Your task to perform on an android device: open the mobile data screen to see how much data has been used Image 0: 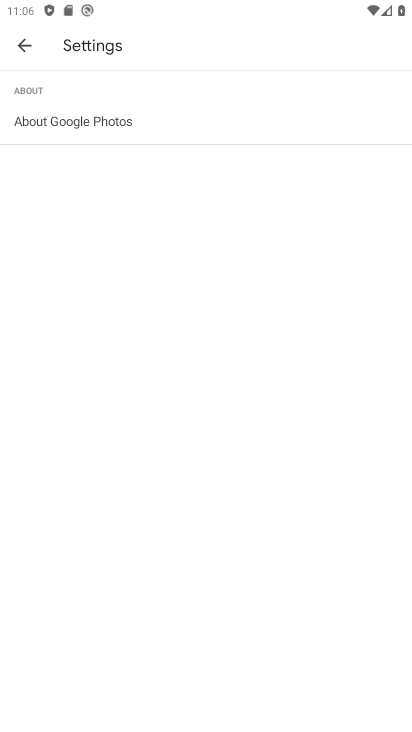
Step 0: press home button
Your task to perform on an android device: open the mobile data screen to see how much data has been used Image 1: 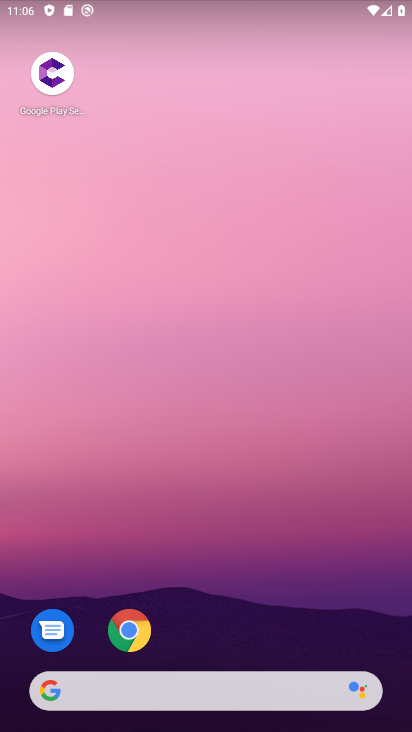
Step 1: drag from (251, 609) to (187, 14)
Your task to perform on an android device: open the mobile data screen to see how much data has been used Image 2: 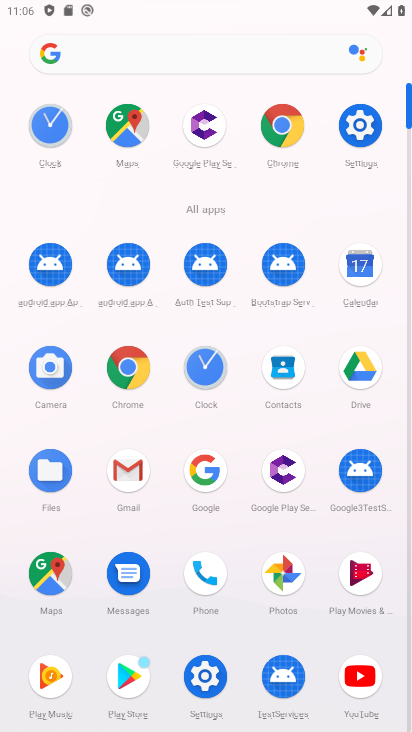
Step 2: click (362, 131)
Your task to perform on an android device: open the mobile data screen to see how much data has been used Image 3: 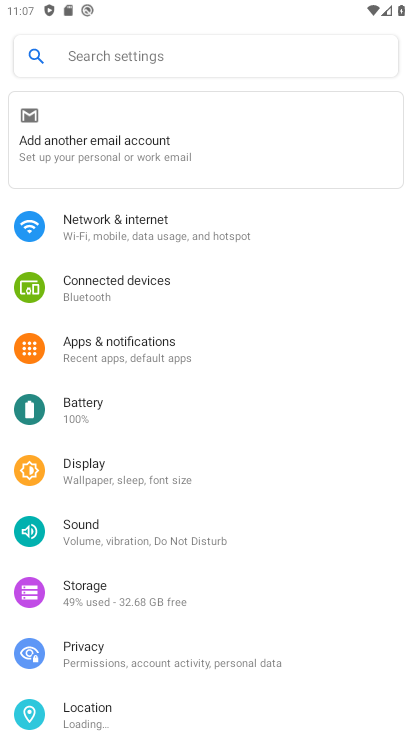
Step 3: click (83, 250)
Your task to perform on an android device: open the mobile data screen to see how much data has been used Image 4: 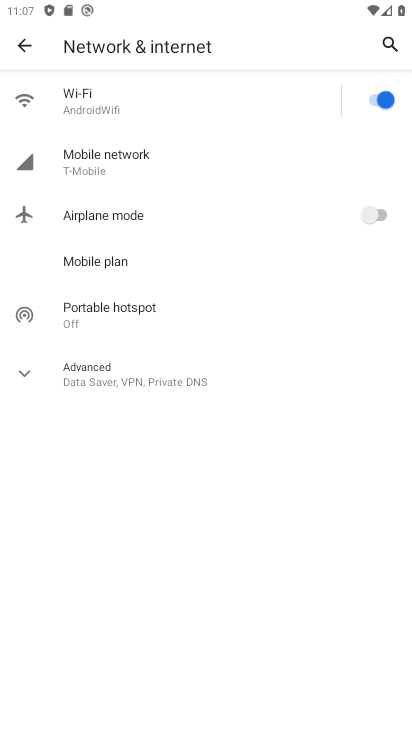
Step 4: click (101, 153)
Your task to perform on an android device: open the mobile data screen to see how much data has been used Image 5: 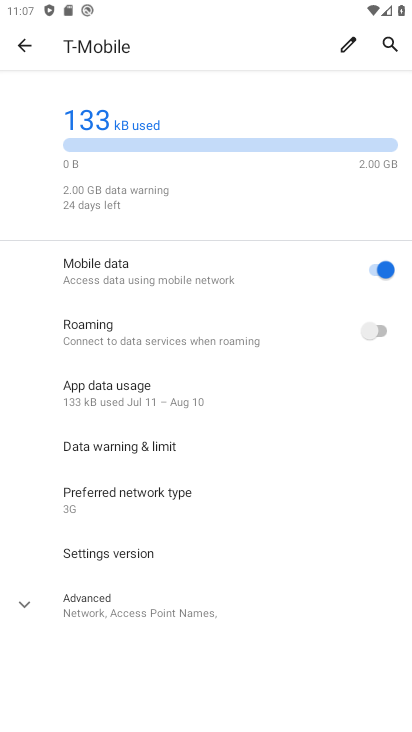
Step 5: task complete